Your task to perform on an android device: Go to wifi settings Image 0: 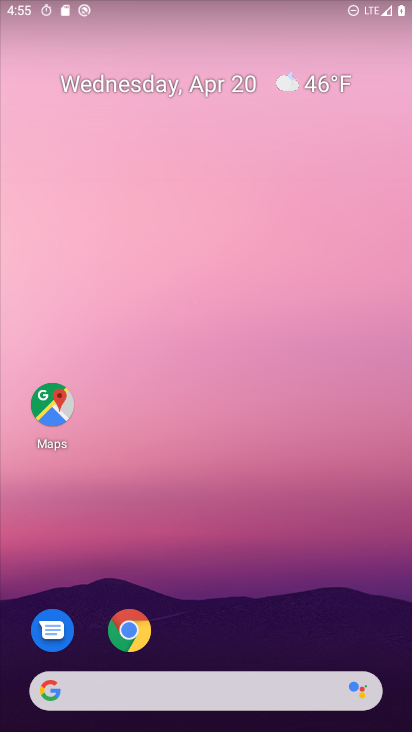
Step 0: drag from (248, 668) to (305, 48)
Your task to perform on an android device: Go to wifi settings Image 1: 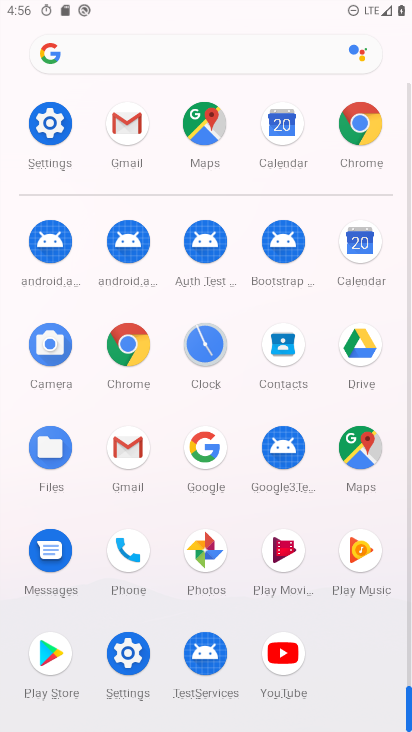
Step 1: click (141, 661)
Your task to perform on an android device: Go to wifi settings Image 2: 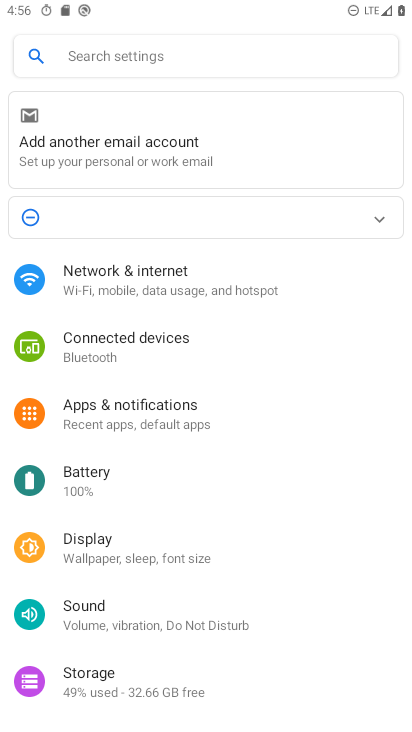
Step 2: click (193, 273)
Your task to perform on an android device: Go to wifi settings Image 3: 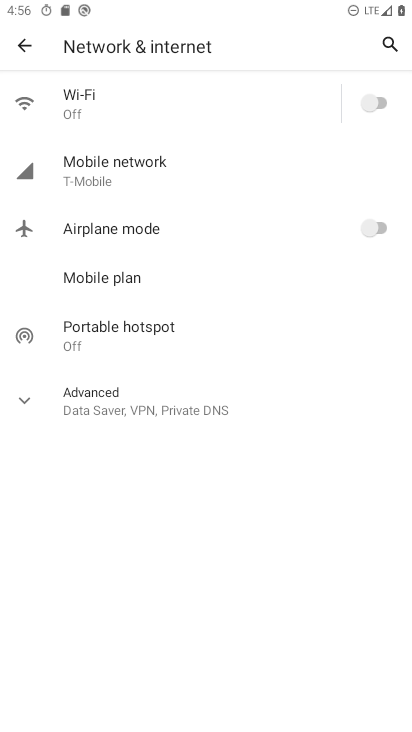
Step 3: click (129, 109)
Your task to perform on an android device: Go to wifi settings Image 4: 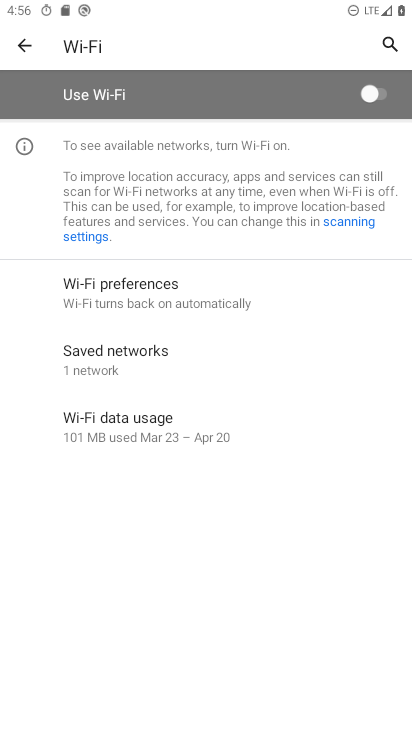
Step 4: task complete